Your task to perform on an android device: Open internet settings Image 0: 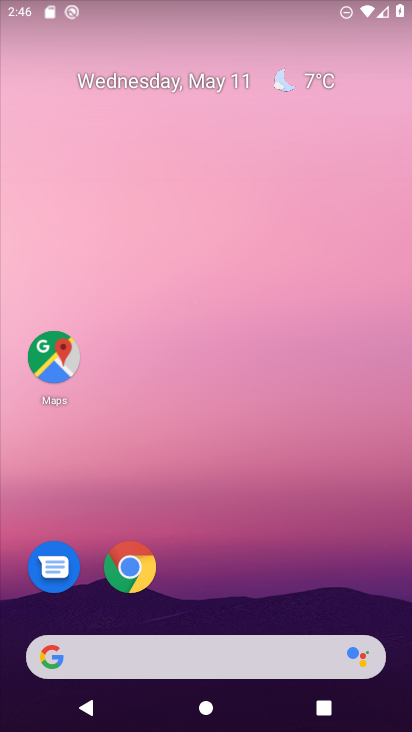
Step 0: drag from (354, 512) to (305, 165)
Your task to perform on an android device: Open internet settings Image 1: 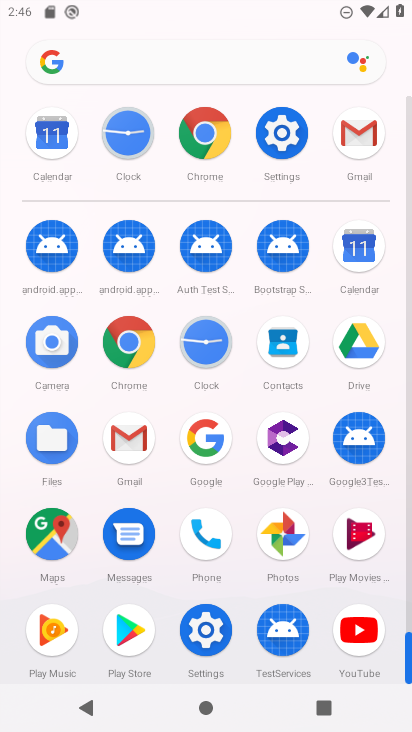
Step 1: click (217, 627)
Your task to perform on an android device: Open internet settings Image 2: 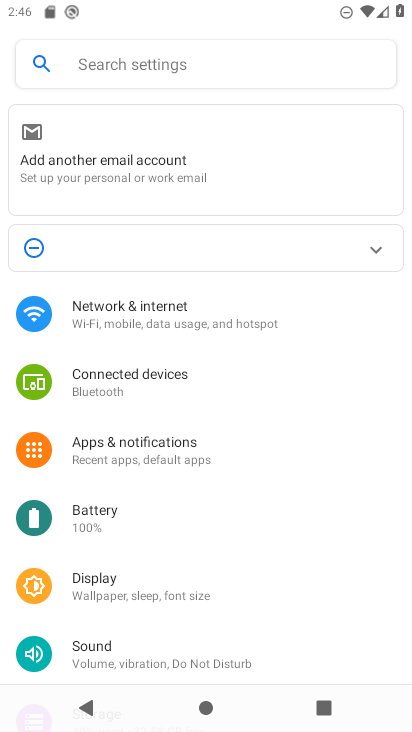
Step 2: click (180, 321)
Your task to perform on an android device: Open internet settings Image 3: 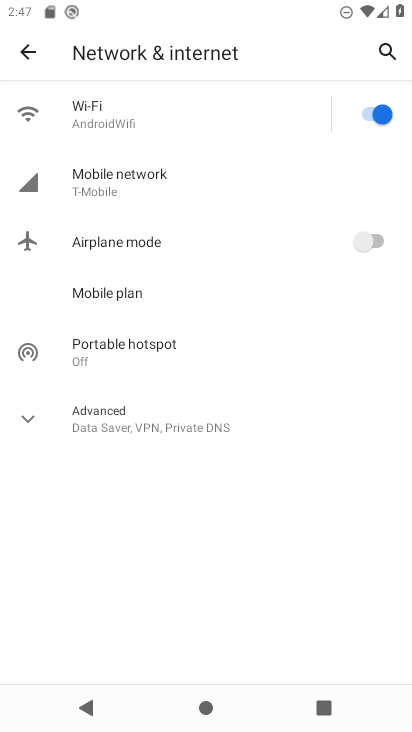
Step 3: task complete